Your task to perform on an android device: Open eBay Image 0: 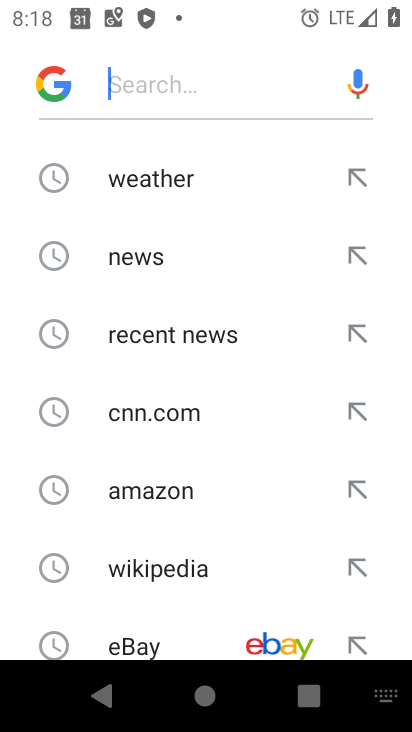
Step 0: drag from (258, 581) to (260, 312)
Your task to perform on an android device: Open eBay Image 1: 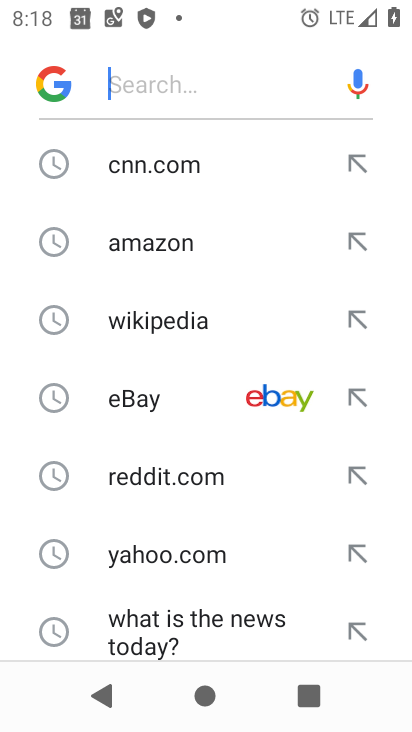
Step 1: click (132, 387)
Your task to perform on an android device: Open eBay Image 2: 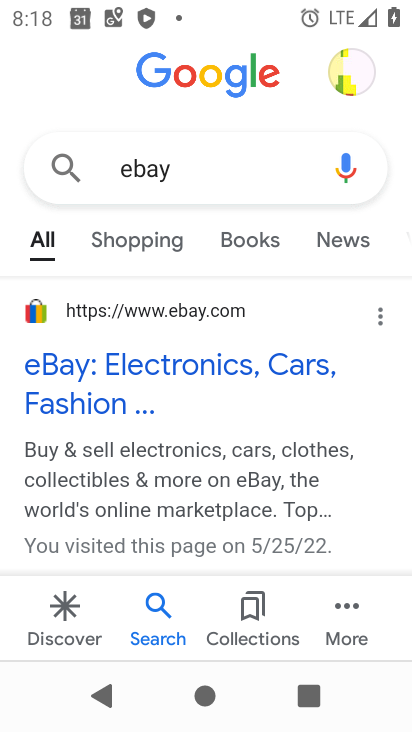
Step 2: click (58, 366)
Your task to perform on an android device: Open eBay Image 3: 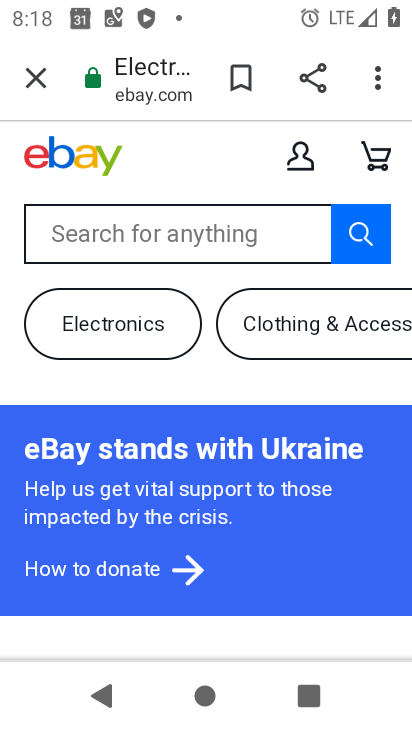
Step 3: task complete